Your task to perform on an android device: Open display settings Image 0: 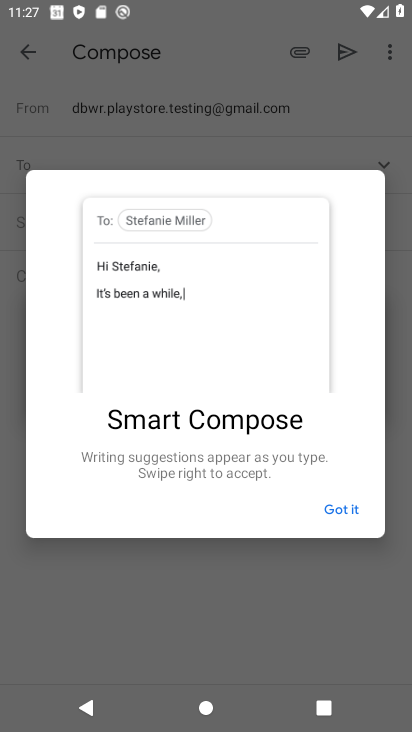
Step 0: click (378, 601)
Your task to perform on an android device: Open display settings Image 1: 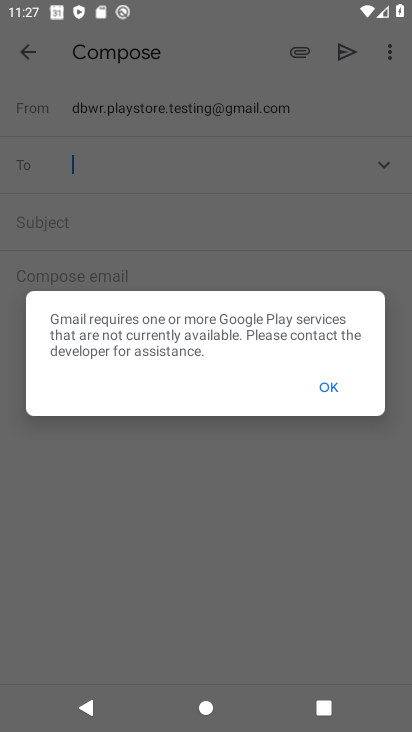
Step 1: press home button
Your task to perform on an android device: Open display settings Image 2: 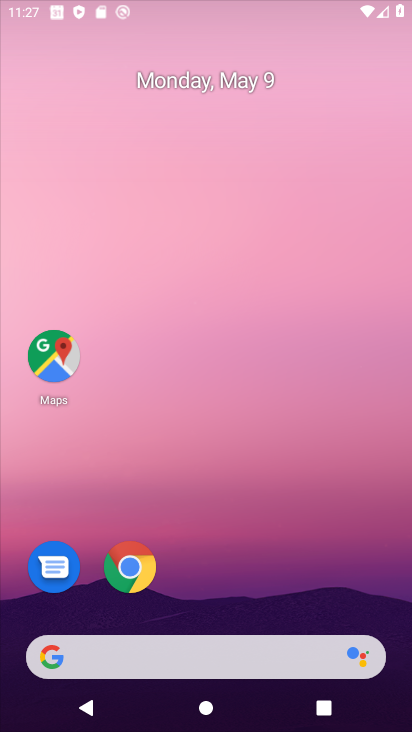
Step 2: drag from (386, 609) to (214, 71)
Your task to perform on an android device: Open display settings Image 3: 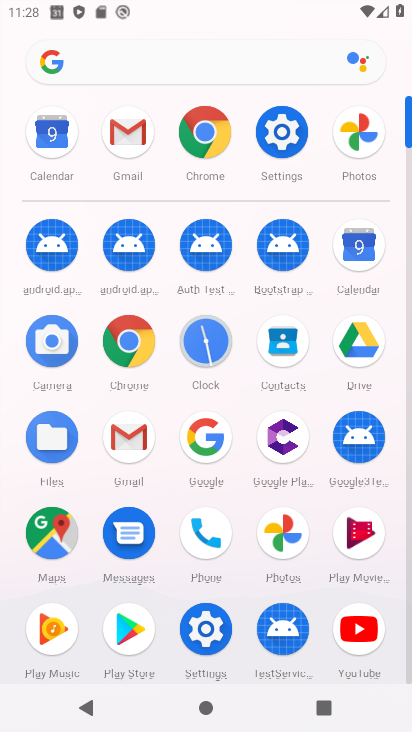
Step 3: click (213, 656)
Your task to perform on an android device: Open display settings Image 4: 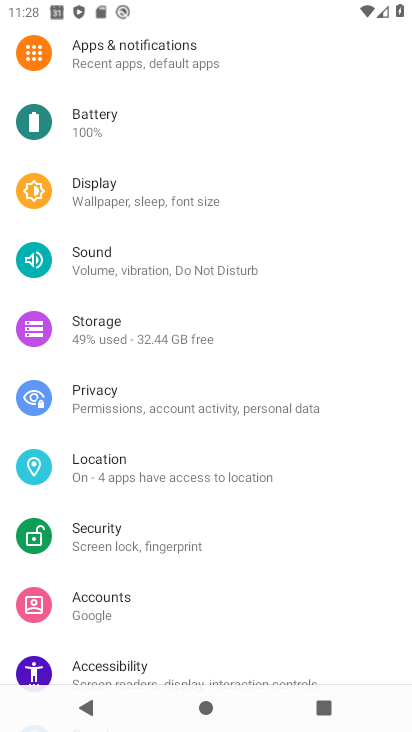
Step 4: click (116, 192)
Your task to perform on an android device: Open display settings Image 5: 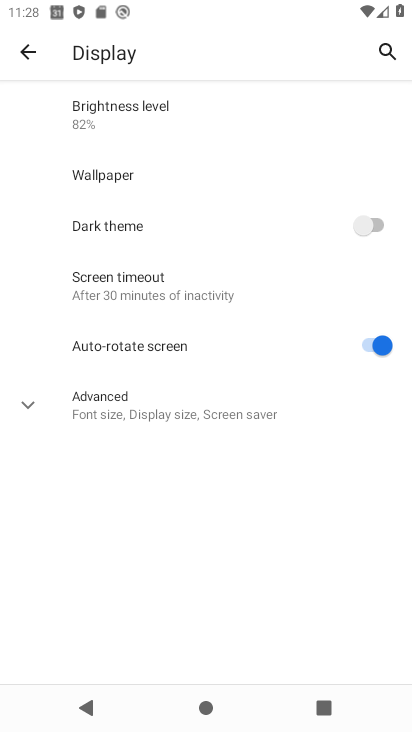
Step 5: task complete